Your task to perform on an android device: Open display settings Image 0: 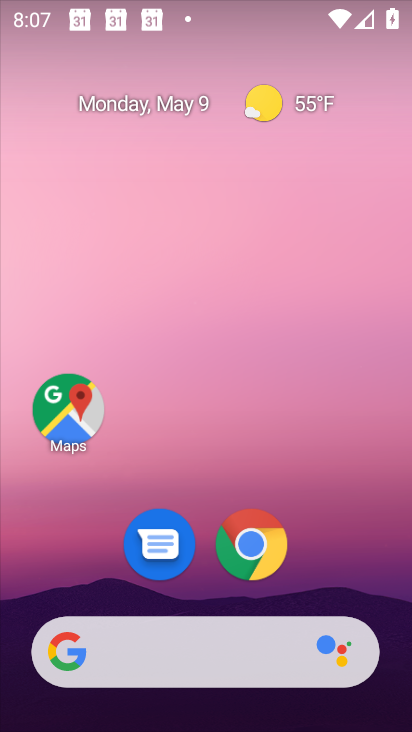
Step 0: drag from (208, 523) to (196, 144)
Your task to perform on an android device: Open display settings Image 1: 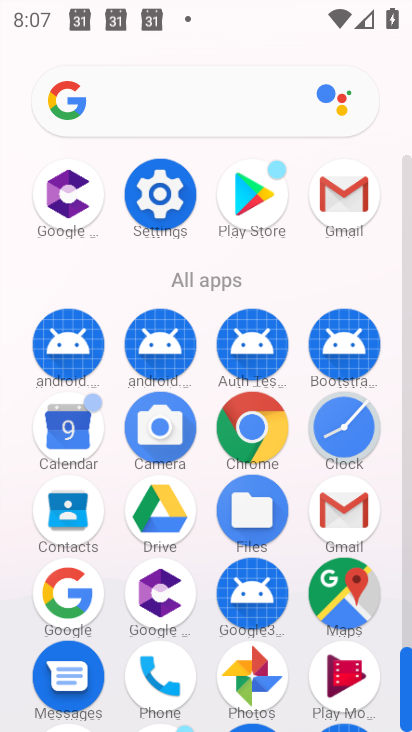
Step 1: click (177, 183)
Your task to perform on an android device: Open display settings Image 2: 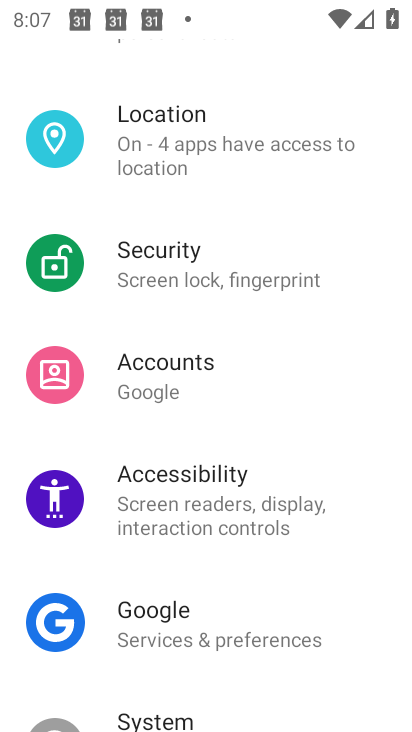
Step 2: drag from (198, 247) to (185, 684)
Your task to perform on an android device: Open display settings Image 3: 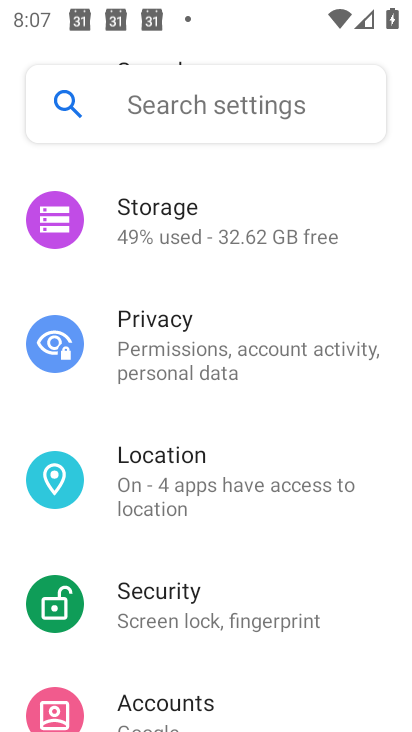
Step 3: drag from (191, 238) to (194, 559)
Your task to perform on an android device: Open display settings Image 4: 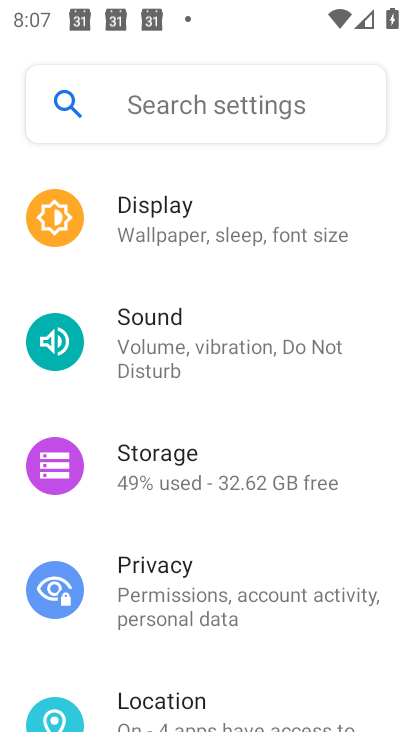
Step 4: click (190, 230)
Your task to perform on an android device: Open display settings Image 5: 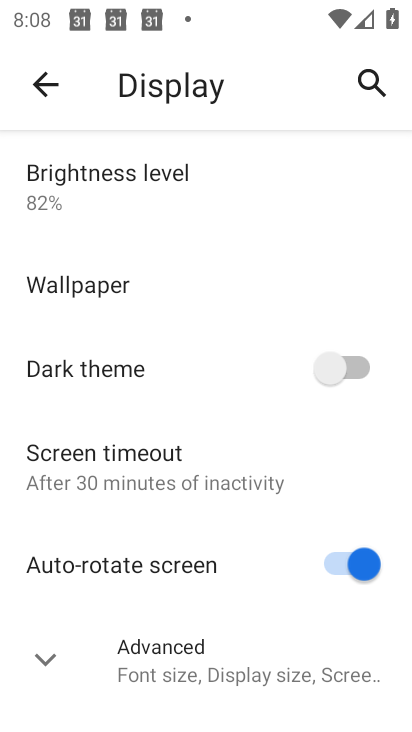
Step 5: task complete